Your task to perform on an android device: Check the weather Image 0: 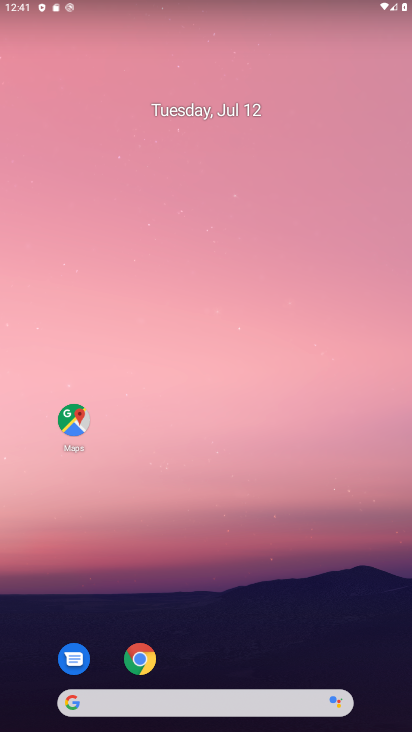
Step 0: drag from (210, 607) to (326, 29)
Your task to perform on an android device: Check the weather Image 1: 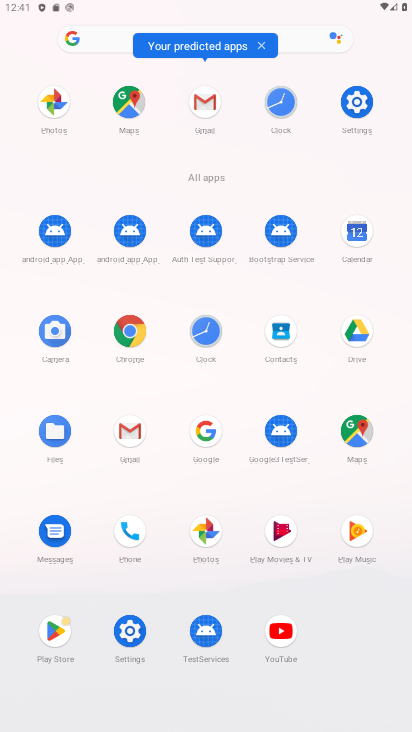
Step 1: click (97, 43)
Your task to perform on an android device: Check the weather Image 2: 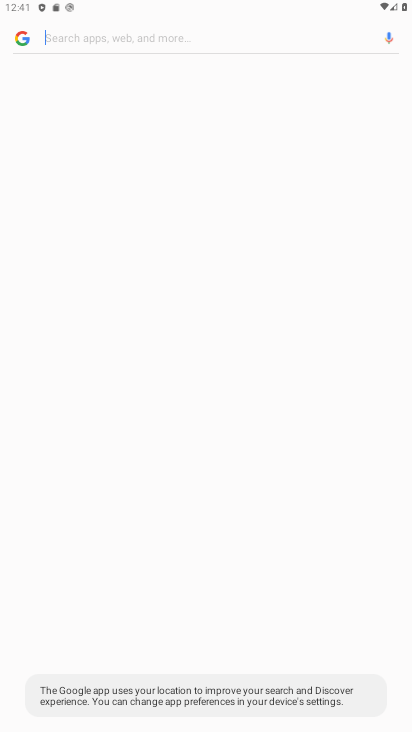
Step 2: click (154, 40)
Your task to perform on an android device: Check the weather Image 3: 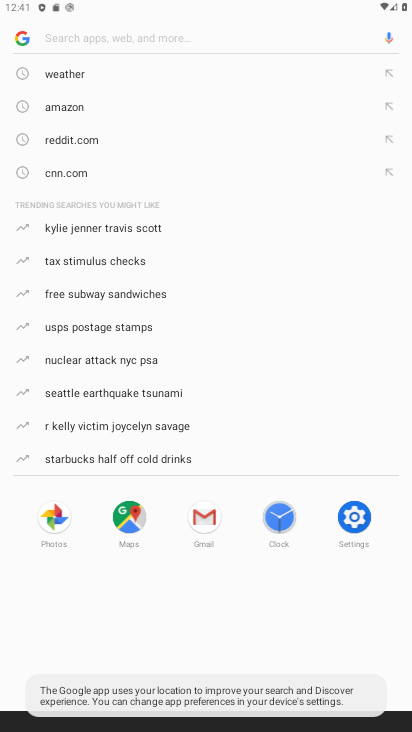
Step 3: click (69, 72)
Your task to perform on an android device: Check the weather Image 4: 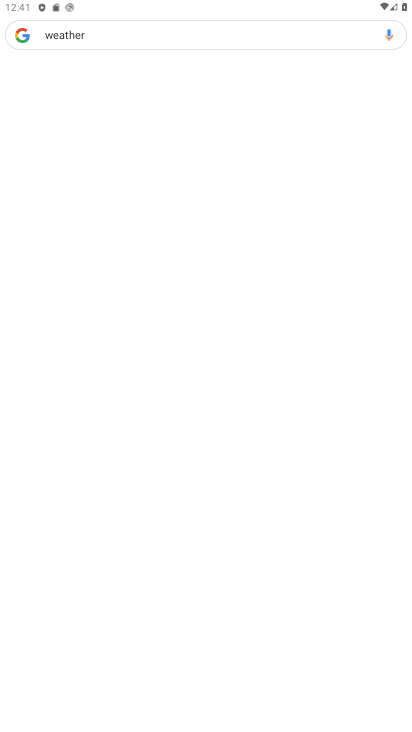
Step 4: click (86, 80)
Your task to perform on an android device: Check the weather Image 5: 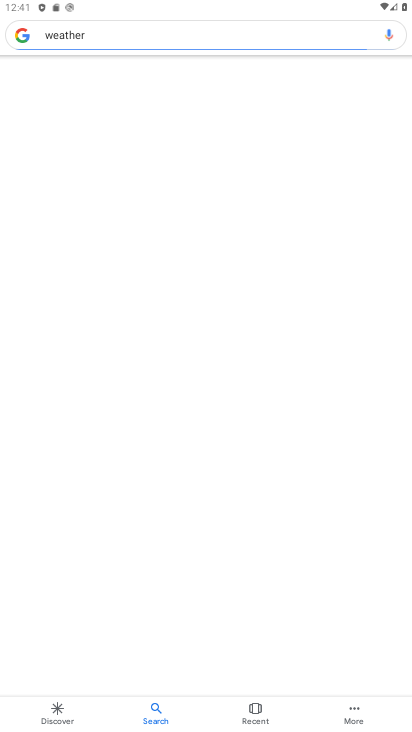
Step 5: task complete